Your task to perform on an android device: Is it going to rain today? Image 0: 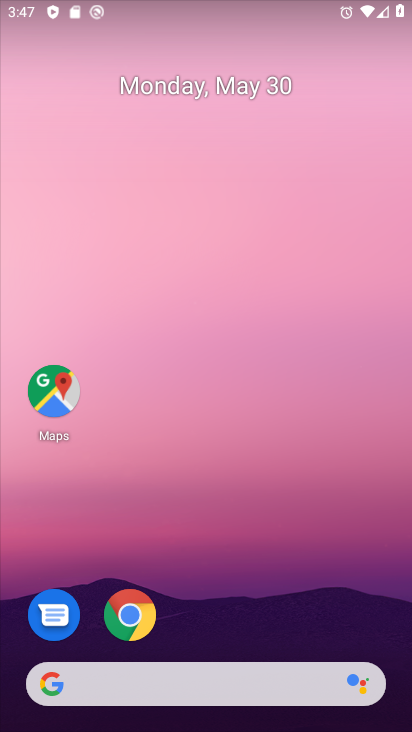
Step 0: click (232, 698)
Your task to perform on an android device: Is it going to rain today? Image 1: 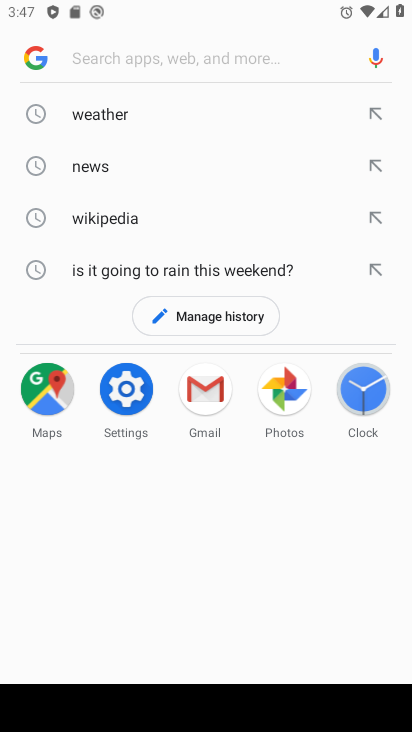
Step 1: click (118, 120)
Your task to perform on an android device: Is it going to rain today? Image 2: 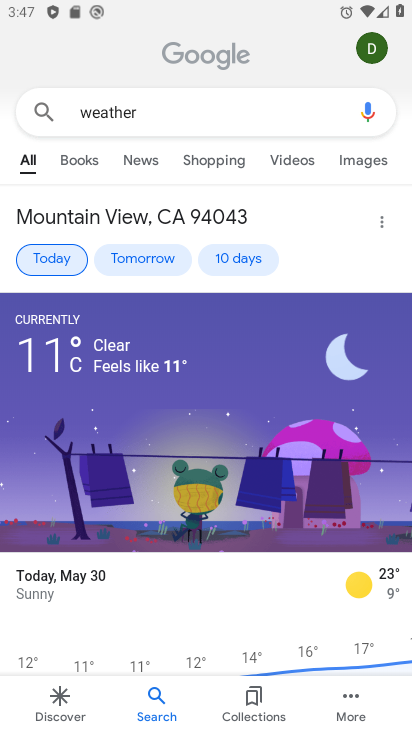
Step 2: click (57, 259)
Your task to perform on an android device: Is it going to rain today? Image 3: 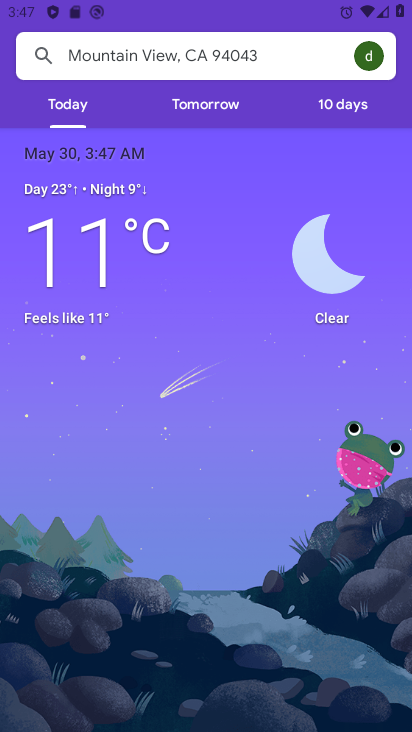
Step 3: task complete